Your task to perform on an android device: Go to Yahoo.com Image 0: 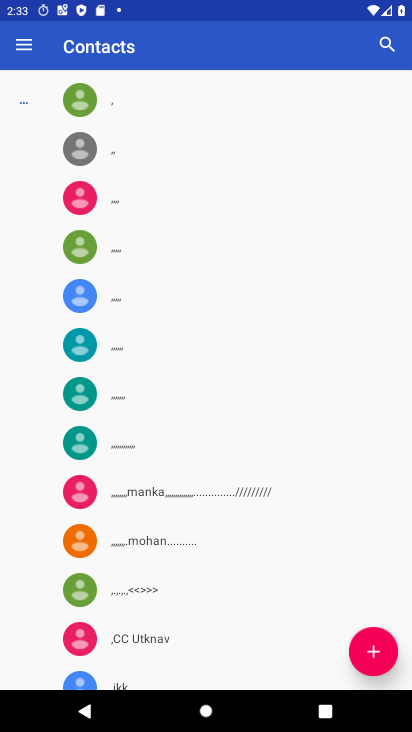
Step 0: press home button
Your task to perform on an android device: Go to Yahoo.com Image 1: 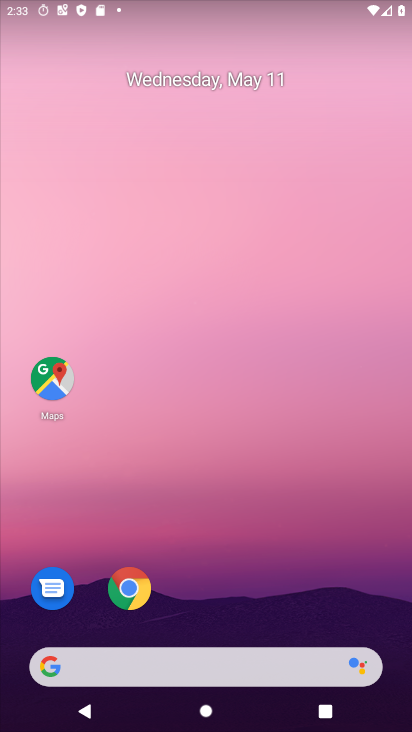
Step 1: drag from (202, 619) to (209, 125)
Your task to perform on an android device: Go to Yahoo.com Image 2: 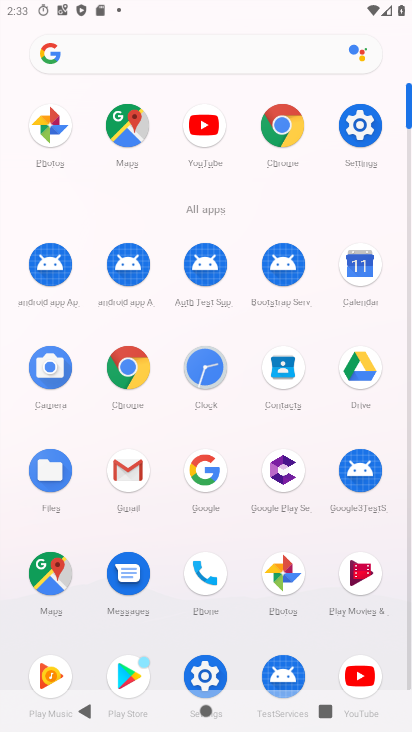
Step 2: click (130, 366)
Your task to perform on an android device: Go to Yahoo.com Image 3: 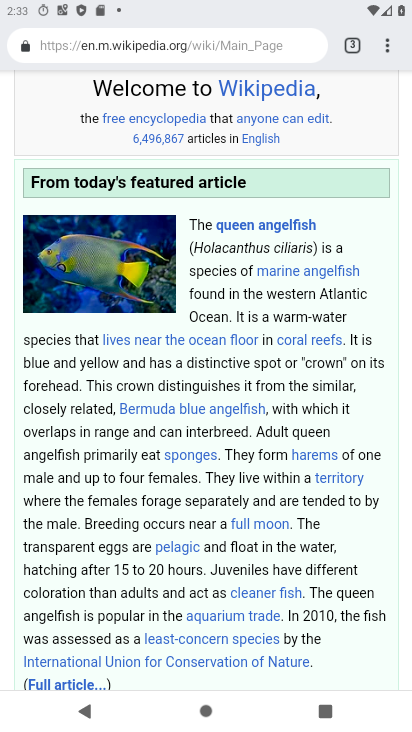
Step 3: click (172, 43)
Your task to perform on an android device: Go to Yahoo.com Image 4: 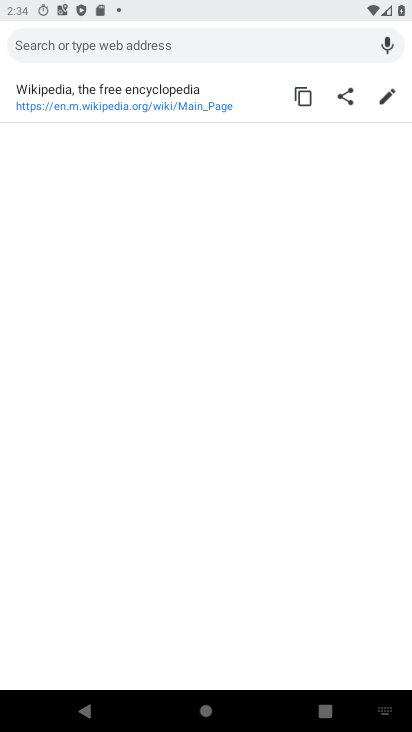
Step 4: type "Yahoo.com"
Your task to perform on an android device: Go to Yahoo.com Image 5: 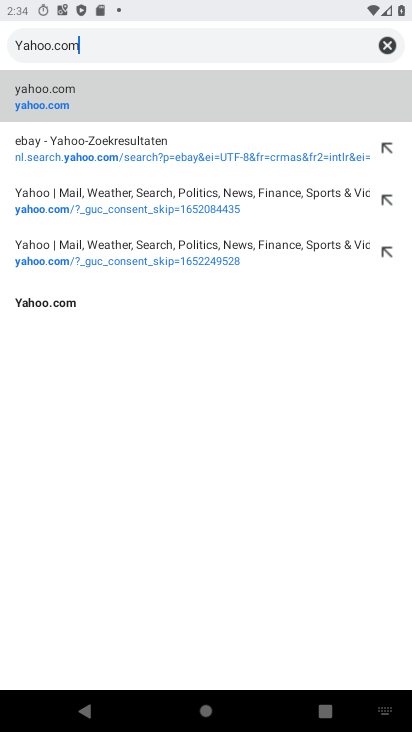
Step 5: click (51, 102)
Your task to perform on an android device: Go to Yahoo.com Image 6: 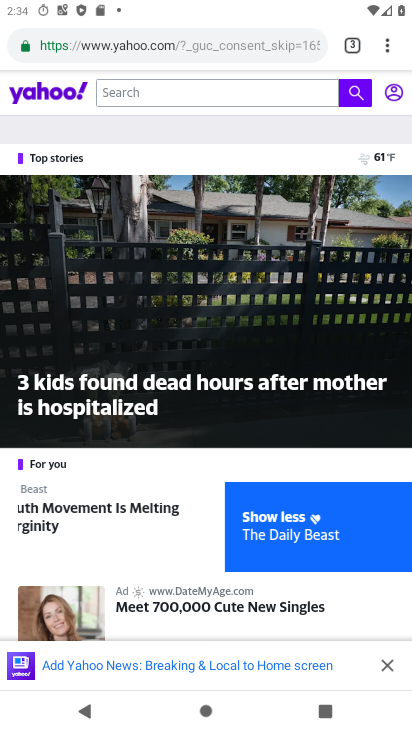
Step 6: task complete